Your task to perform on an android device: change the clock display to show seconds Image 0: 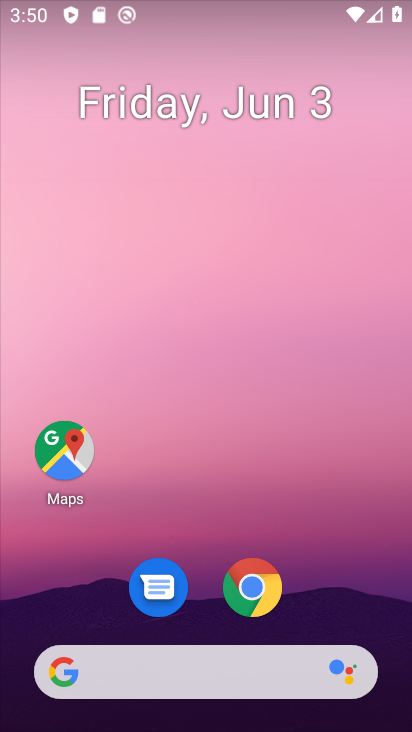
Step 0: drag from (347, 556) to (352, 219)
Your task to perform on an android device: change the clock display to show seconds Image 1: 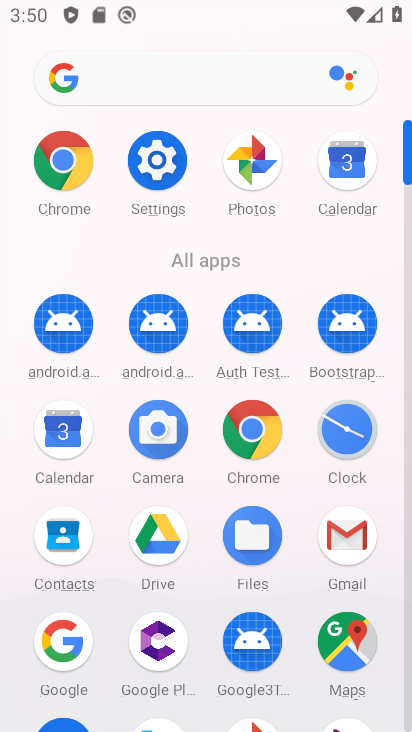
Step 1: click (347, 421)
Your task to perform on an android device: change the clock display to show seconds Image 2: 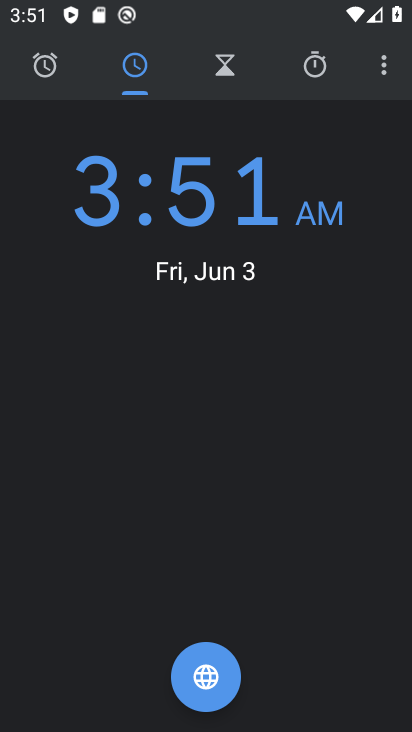
Step 2: click (384, 82)
Your task to perform on an android device: change the clock display to show seconds Image 3: 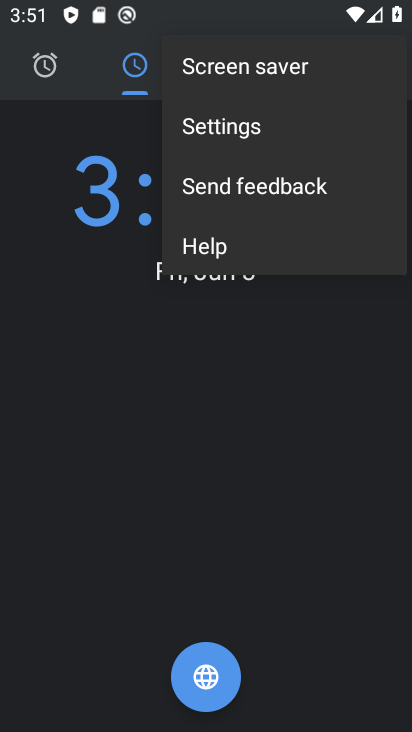
Step 3: click (246, 121)
Your task to perform on an android device: change the clock display to show seconds Image 4: 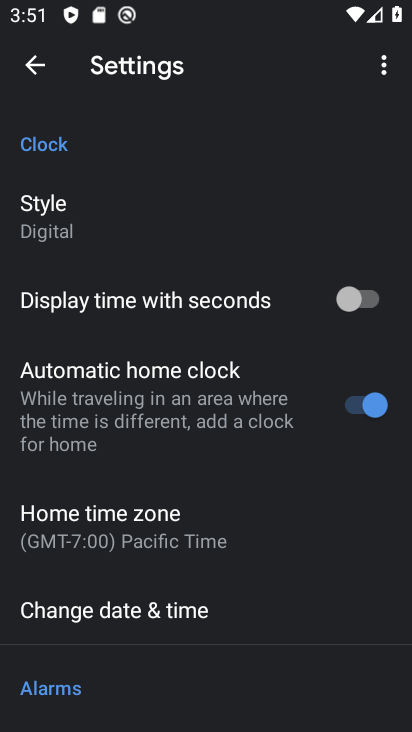
Step 4: click (358, 310)
Your task to perform on an android device: change the clock display to show seconds Image 5: 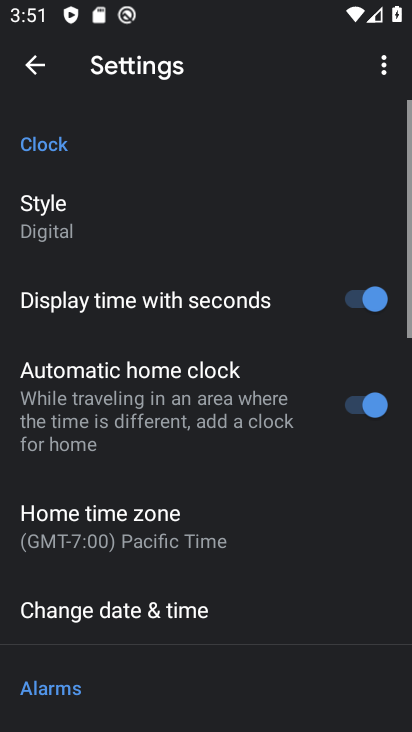
Step 5: task complete